Your task to perform on an android device: turn off notifications settings in the gmail app Image 0: 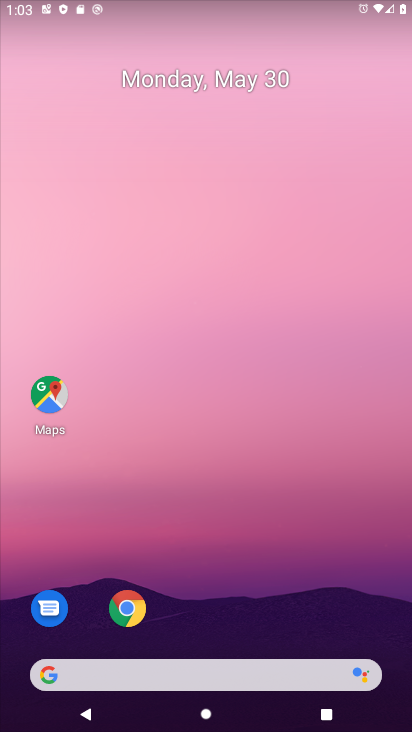
Step 0: drag from (250, 554) to (276, 123)
Your task to perform on an android device: turn off notifications settings in the gmail app Image 1: 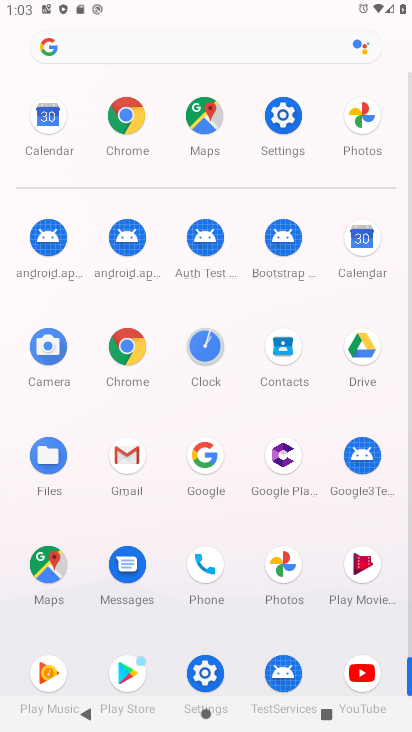
Step 1: click (281, 122)
Your task to perform on an android device: turn off notifications settings in the gmail app Image 2: 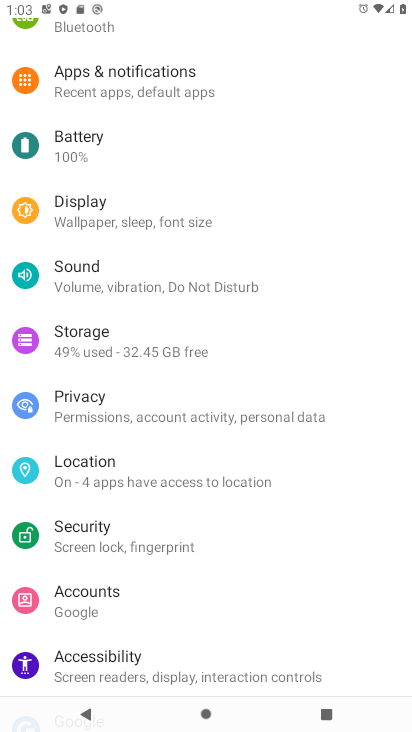
Step 2: click (113, 87)
Your task to perform on an android device: turn off notifications settings in the gmail app Image 3: 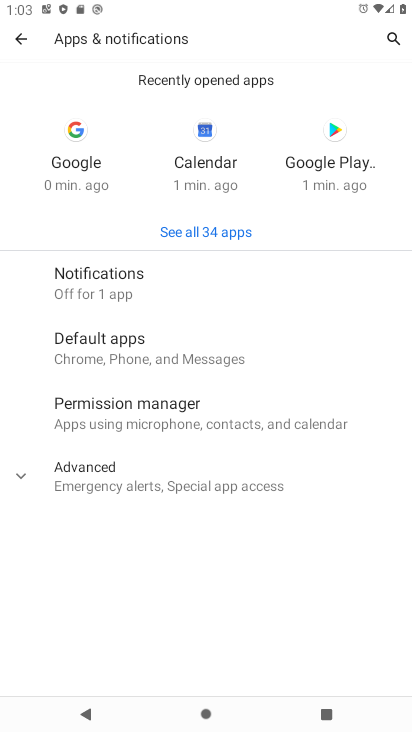
Step 3: click (125, 275)
Your task to perform on an android device: turn off notifications settings in the gmail app Image 4: 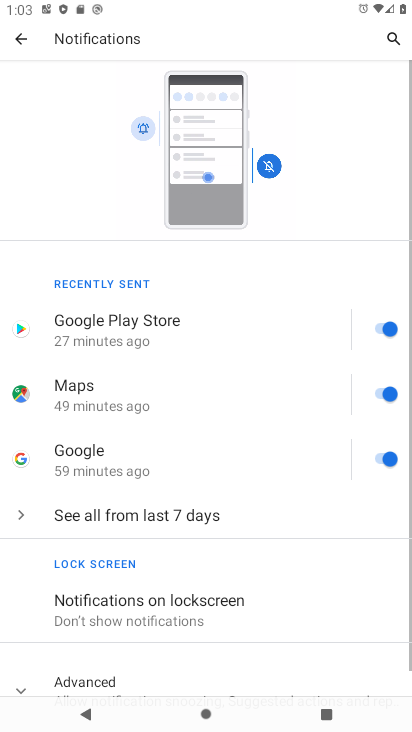
Step 4: click (125, 275)
Your task to perform on an android device: turn off notifications settings in the gmail app Image 5: 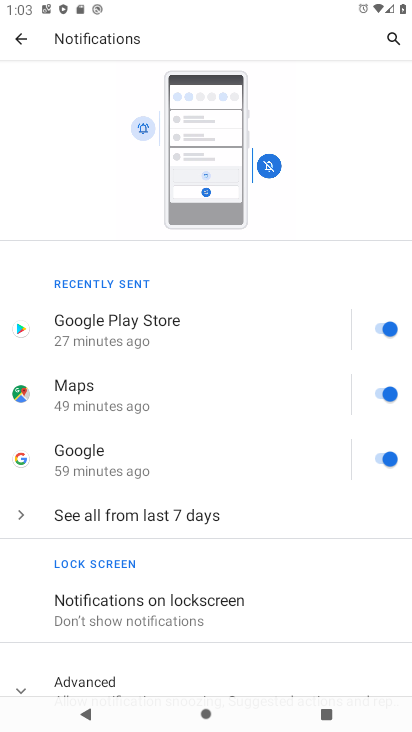
Step 5: drag from (256, 598) to (242, 237)
Your task to perform on an android device: turn off notifications settings in the gmail app Image 6: 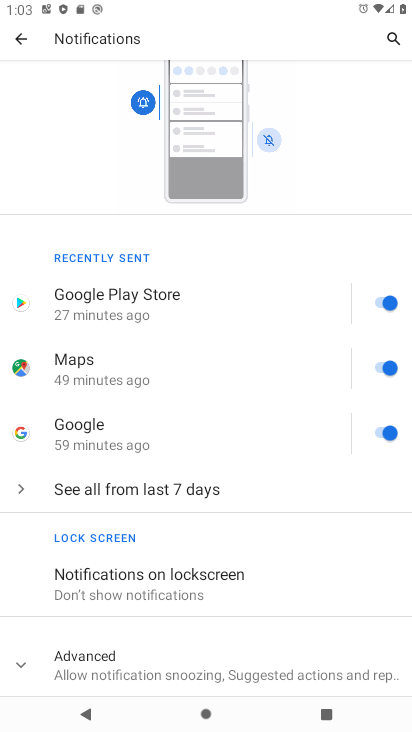
Step 6: click (157, 567)
Your task to perform on an android device: turn off notifications settings in the gmail app Image 7: 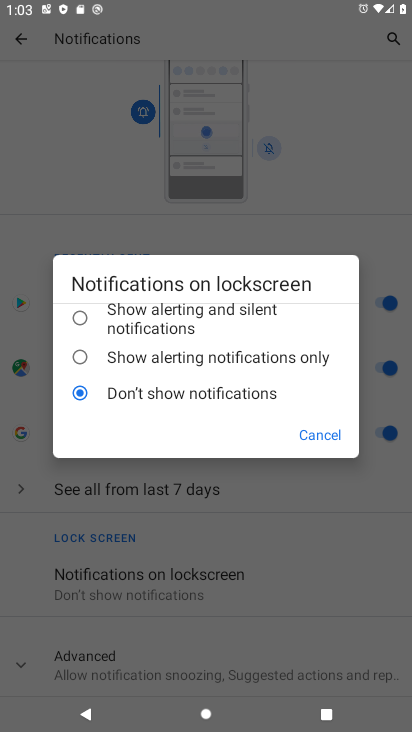
Step 7: click (194, 403)
Your task to perform on an android device: turn off notifications settings in the gmail app Image 8: 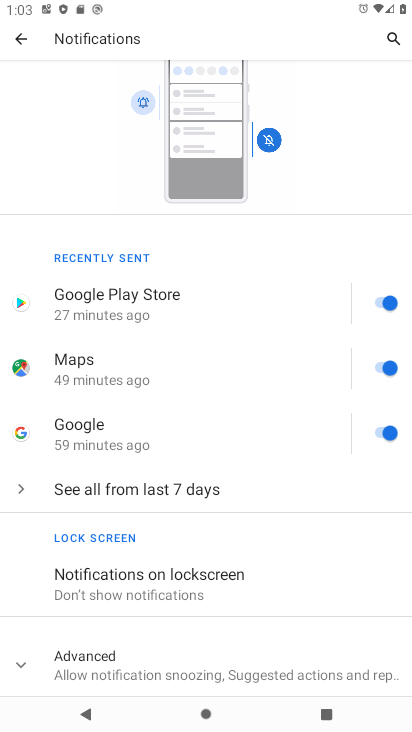
Step 8: task complete